Your task to perform on an android device: turn on wifi Image 0: 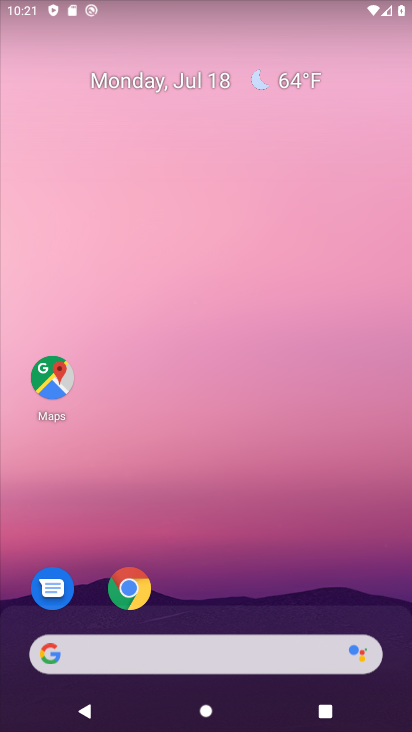
Step 0: drag from (232, 615) to (263, 151)
Your task to perform on an android device: turn on wifi Image 1: 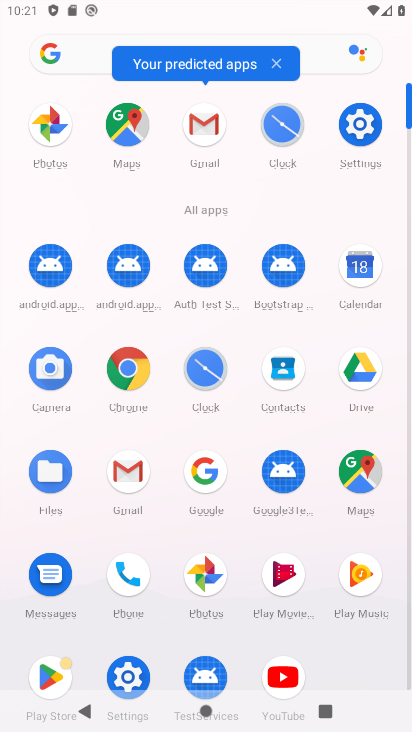
Step 1: click (130, 667)
Your task to perform on an android device: turn on wifi Image 2: 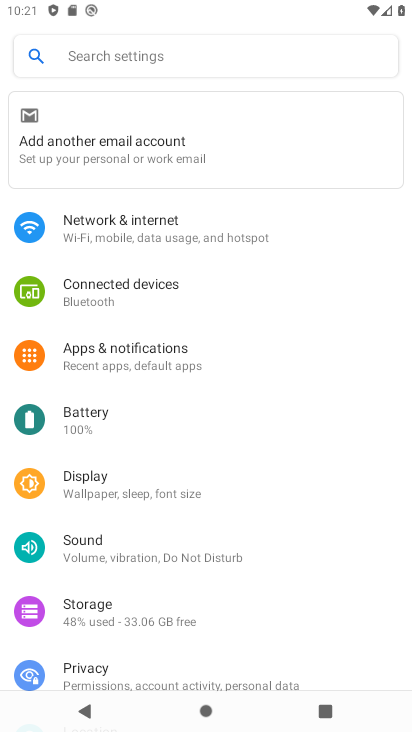
Step 2: click (164, 234)
Your task to perform on an android device: turn on wifi Image 3: 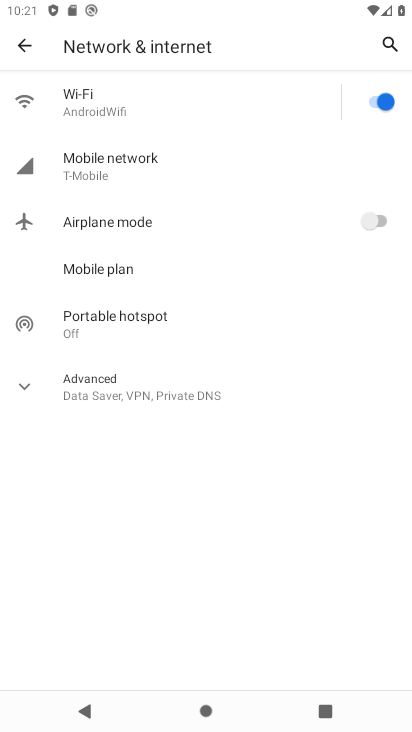
Step 3: task complete